Your task to perform on an android device: read, delete, or share a saved page in the chrome app Image 0: 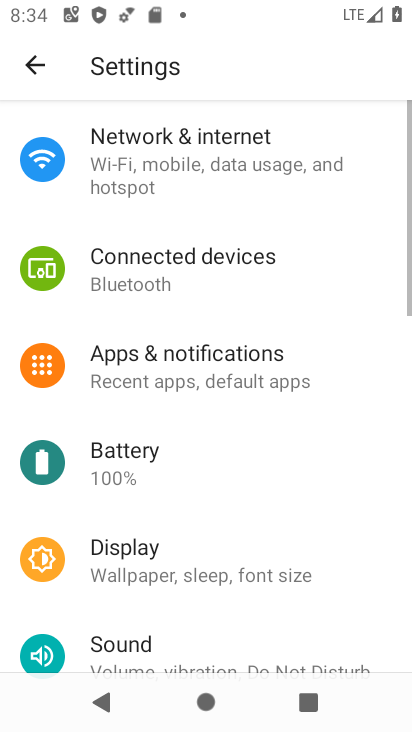
Step 0: press home button
Your task to perform on an android device: read, delete, or share a saved page in the chrome app Image 1: 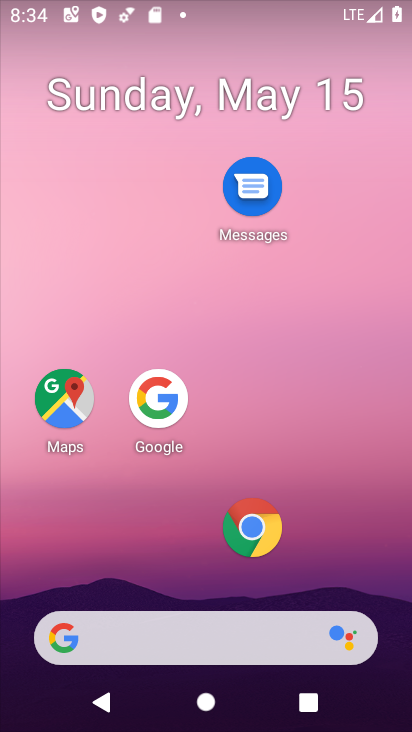
Step 1: click (254, 522)
Your task to perform on an android device: read, delete, or share a saved page in the chrome app Image 2: 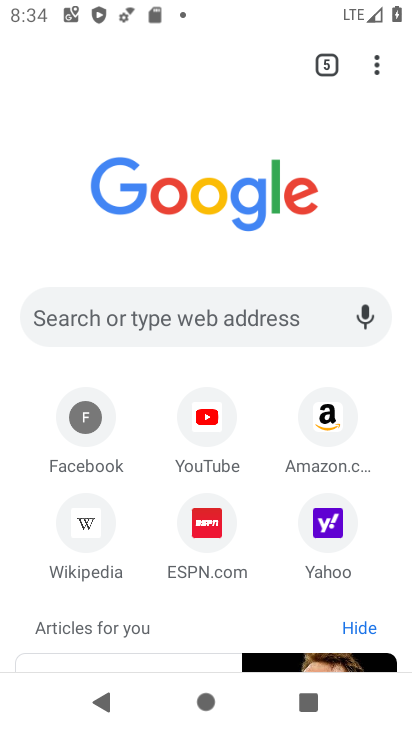
Step 2: drag from (375, 71) to (177, 429)
Your task to perform on an android device: read, delete, or share a saved page in the chrome app Image 3: 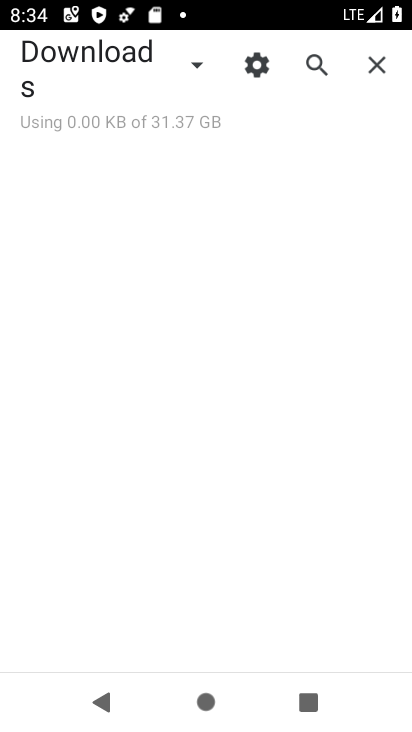
Step 3: click (190, 66)
Your task to perform on an android device: read, delete, or share a saved page in the chrome app Image 4: 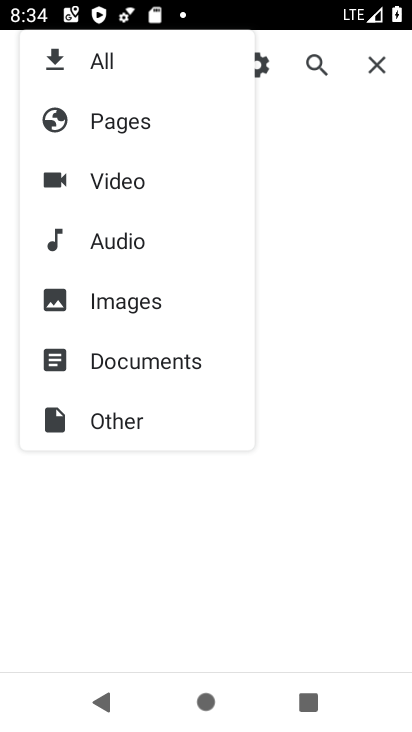
Step 4: click (130, 123)
Your task to perform on an android device: read, delete, or share a saved page in the chrome app Image 5: 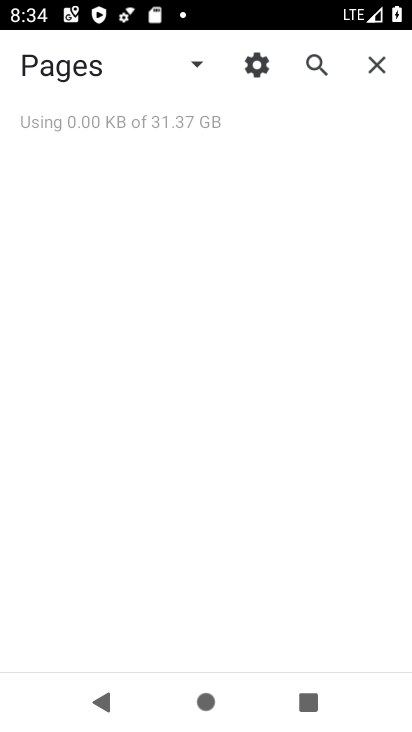
Step 5: task complete